Your task to perform on an android device: turn on showing notifications on the lock screen Image 0: 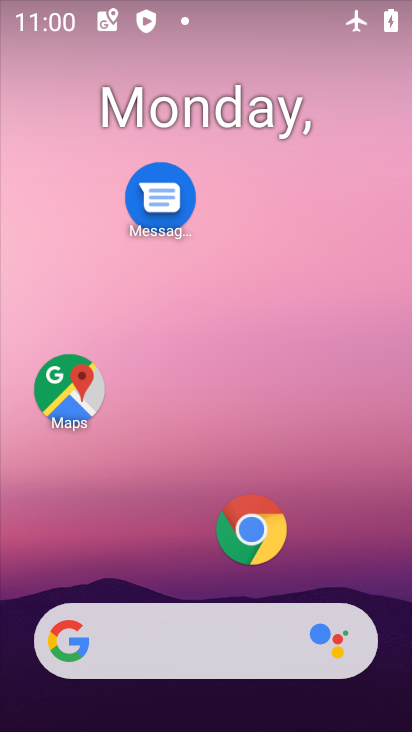
Step 0: drag from (217, 503) to (286, 154)
Your task to perform on an android device: turn on showing notifications on the lock screen Image 1: 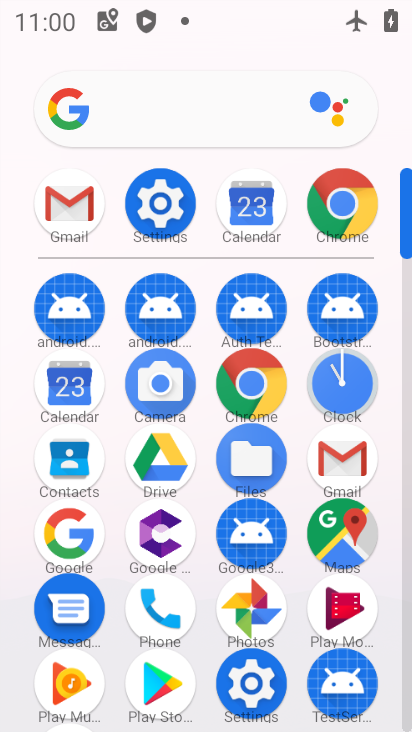
Step 1: click (152, 219)
Your task to perform on an android device: turn on showing notifications on the lock screen Image 2: 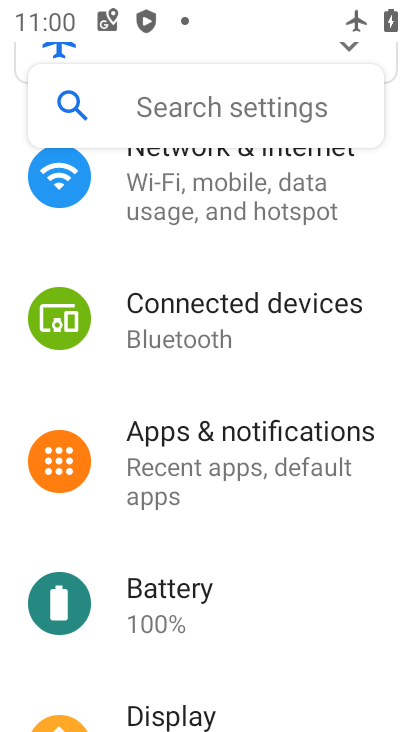
Step 2: click (233, 265)
Your task to perform on an android device: turn on showing notifications on the lock screen Image 3: 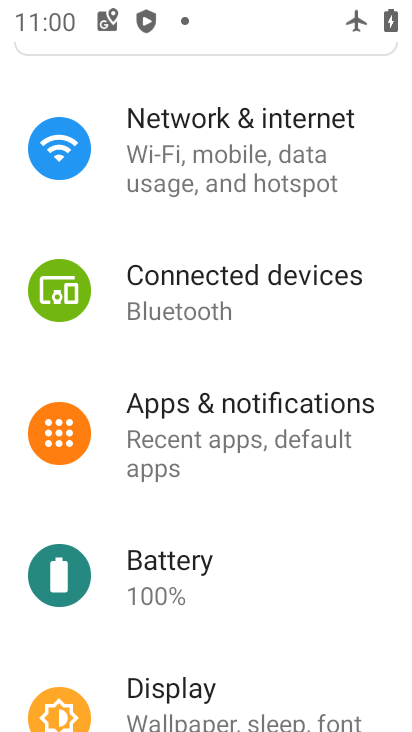
Step 3: click (210, 414)
Your task to perform on an android device: turn on showing notifications on the lock screen Image 4: 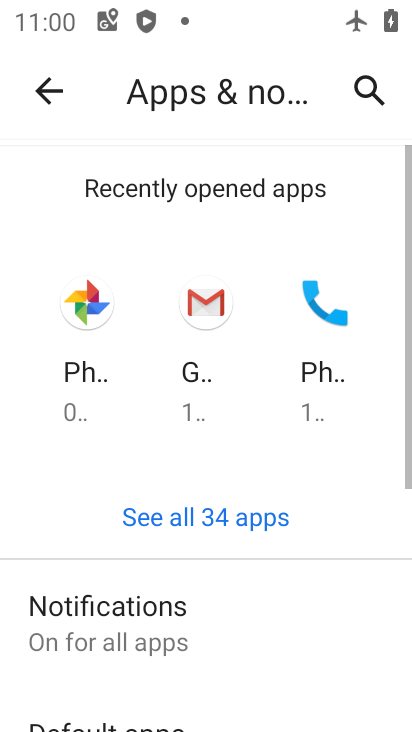
Step 4: click (135, 628)
Your task to perform on an android device: turn on showing notifications on the lock screen Image 5: 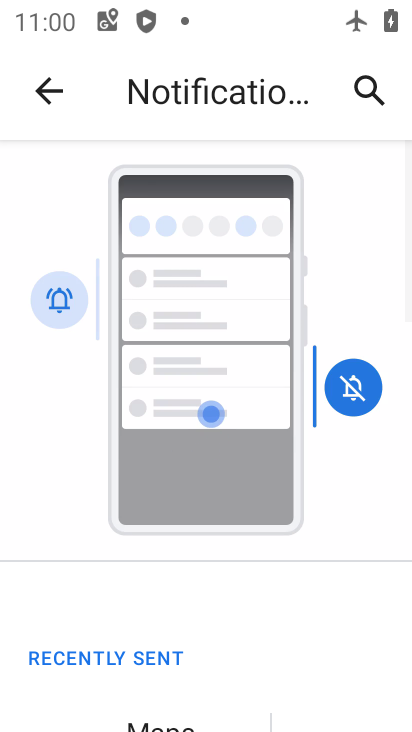
Step 5: drag from (135, 612) to (143, 276)
Your task to perform on an android device: turn on showing notifications on the lock screen Image 6: 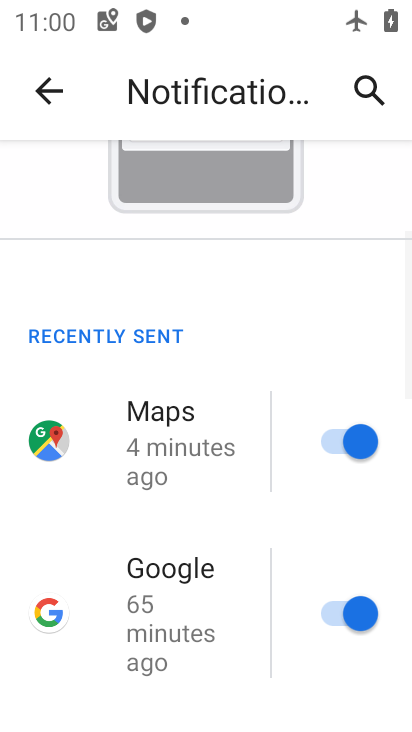
Step 6: drag from (149, 664) to (158, 200)
Your task to perform on an android device: turn on showing notifications on the lock screen Image 7: 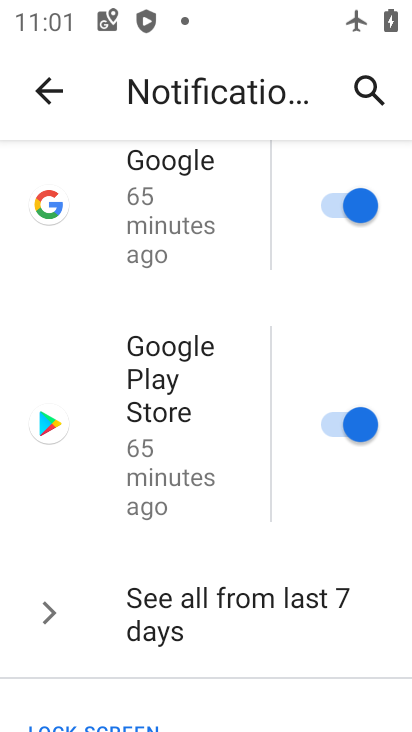
Step 7: drag from (162, 678) to (207, 309)
Your task to perform on an android device: turn on showing notifications on the lock screen Image 8: 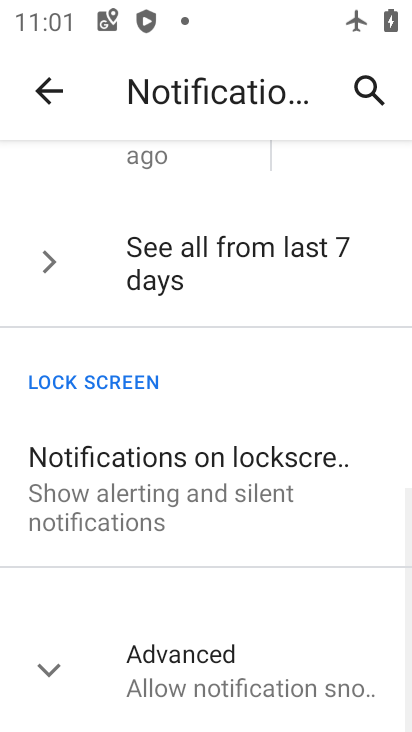
Step 8: click (189, 474)
Your task to perform on an android device: turn on showing notifications on the lock screen Image 9: 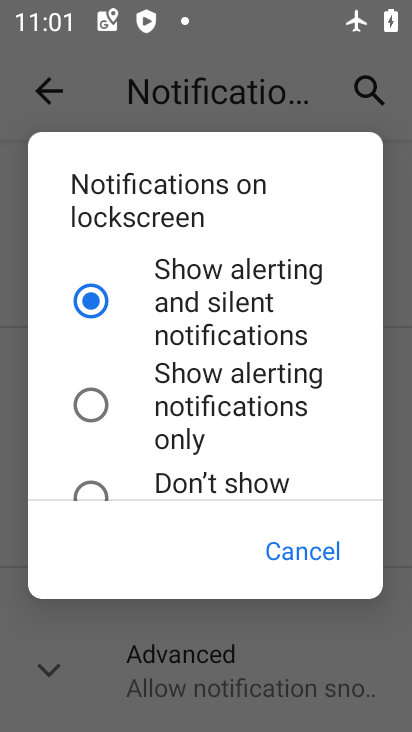
Step 9: task complete